Your task to perform on an android device: Go to battery settings Image 0: 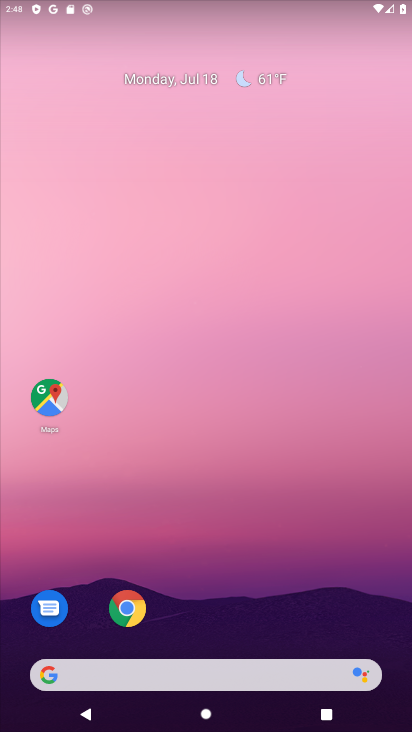
Step 0: drag from (257, 603) to (222, 157)
Your task to perform on an android device: Go to battery settings Image 1: 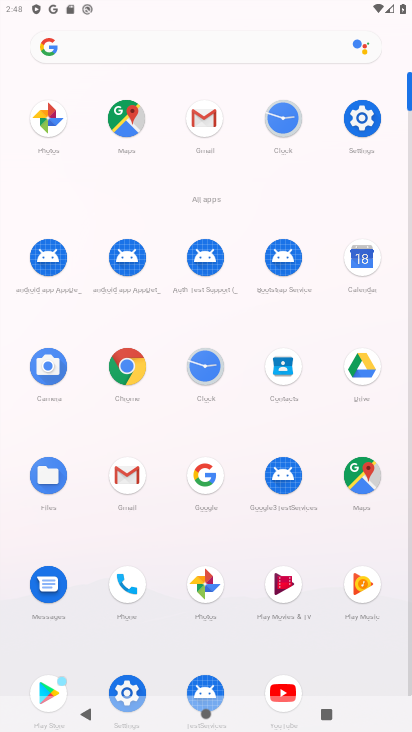
Step 1: click (344, 133)
Your task to perform on an android device: Go to battery settings Image 2: 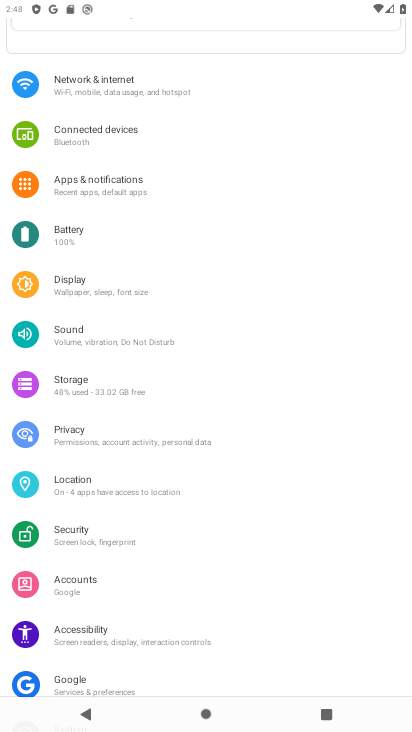
Step 2: click (93, 232)
Your task to perform on an android device: Go to battery settings Image 3: 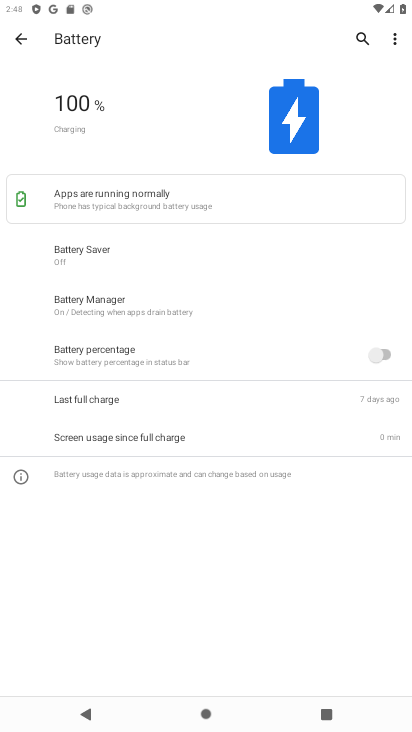
Step 3: task complete